Your task to perform on an android device: Go to Android settings Image 0: 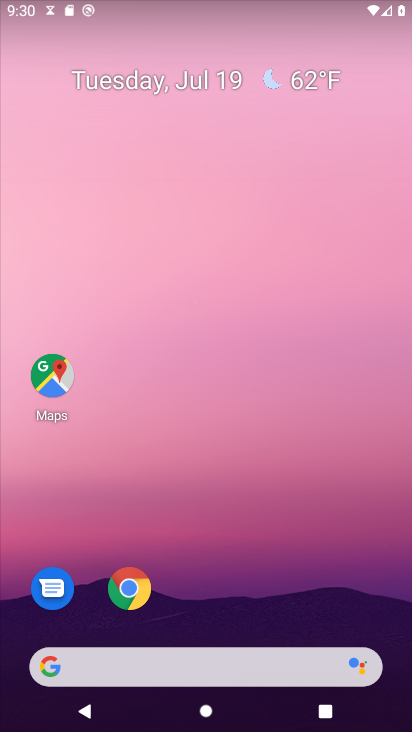
Step 0: drag from (174, 562) to (191, 13)
Your task to perform on an android device: Go to Android settings Image 1: 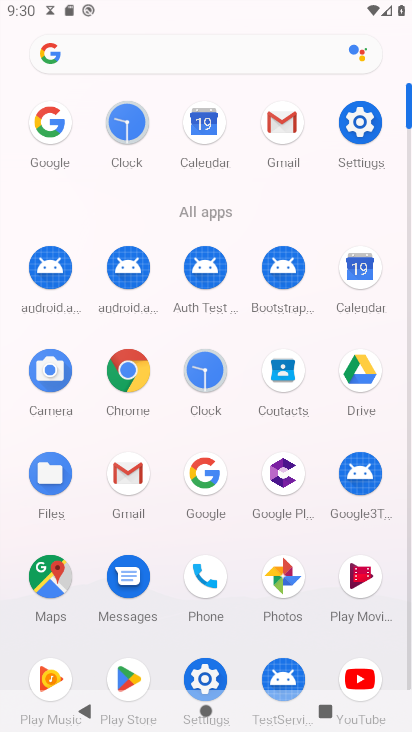
Step 1: click (367, 128)
Your task to perform on an android device: Go to Android settings Image 2: 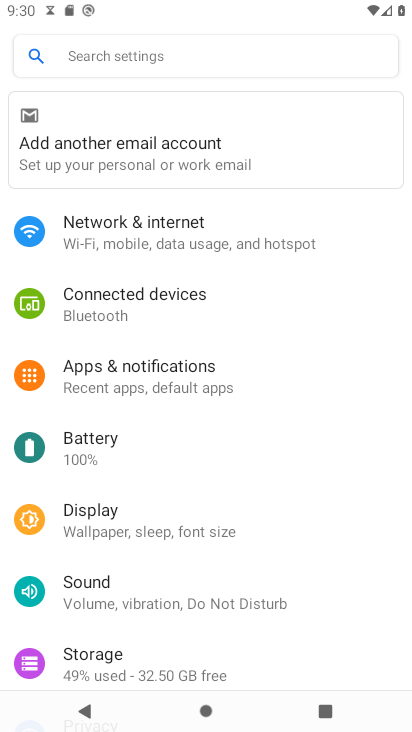
Step 2: drag from (146, 582) to (146, 263)
Your task to perform on an android device: Go to Android settings Image 3: 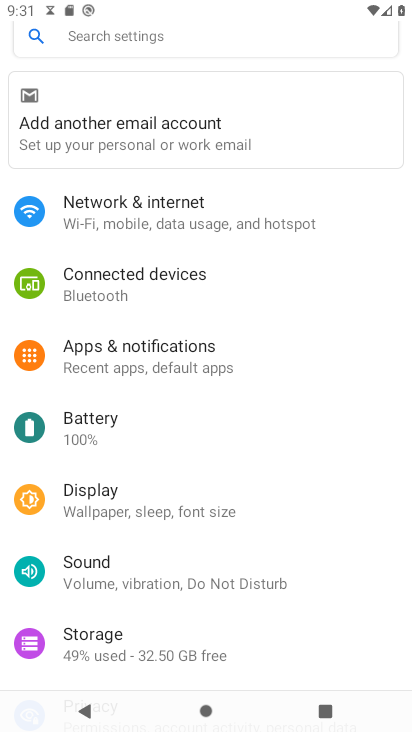
Step 3: drag from (131, 545) to (205, 242)
Your task to perform on an android device: Go to Android settings Image 4: 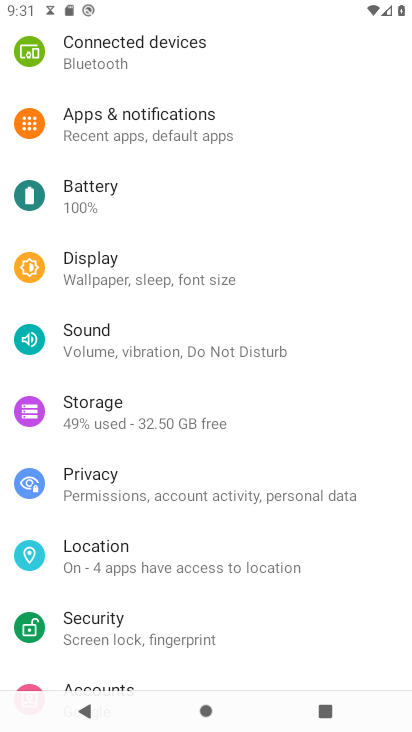
Step 4: drag from (116, 564) to (186, 304)
Your task to perform on an android device: Go to Android settings Image 5: 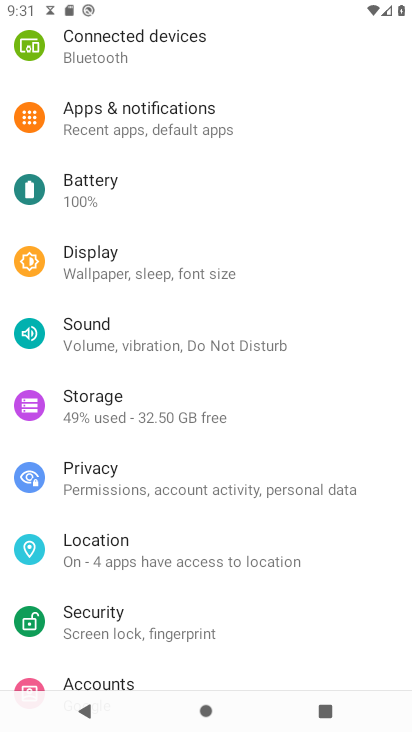
Step 5: drag from (104, 595) to (139, 105)
Your task to perform on an android device: Go to Android settings Image 6: 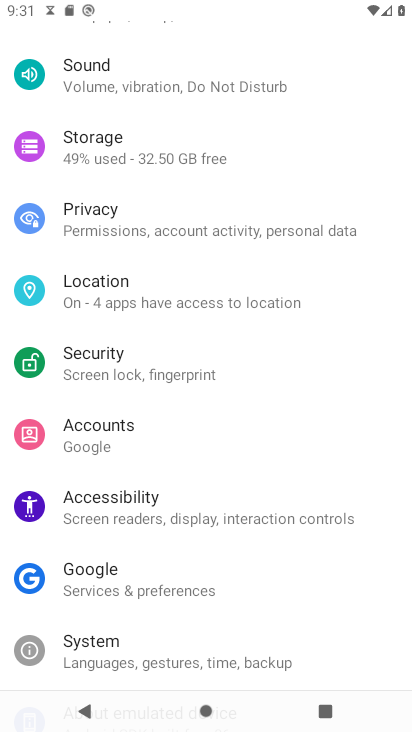
Step 6: drag from (85, 510) to (91, 356)
Your task to perform on an android device: Go to Android settings Image 7: 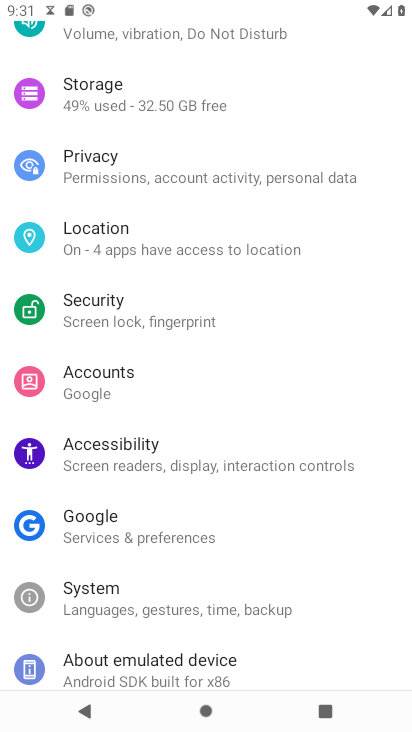
Step 7: click (100, 664)
Your task to perform on an android device: Go to Android settings Image 8: 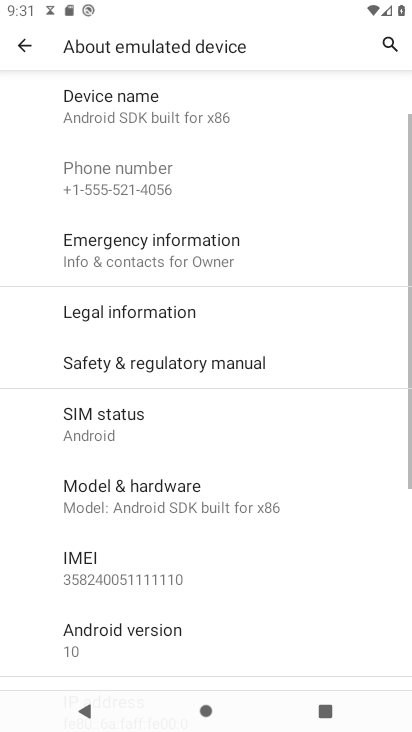
Step 8: click (100, 632)
Your task to perform on an android device: Go to Android settings Image 9: 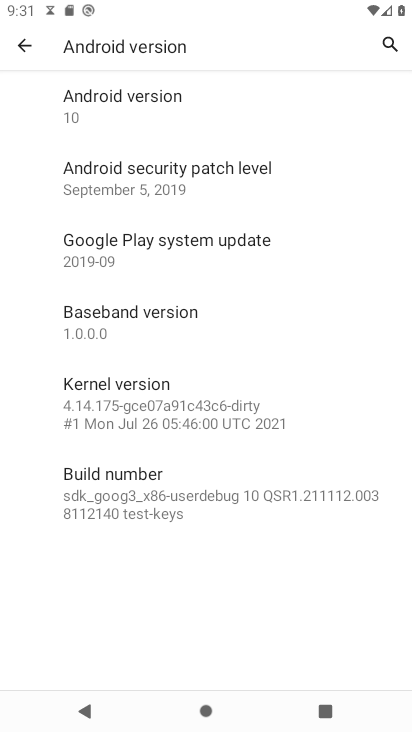
Step 9: task complete